Your task to perform on an android device: Is it going to rain tomorrow? Image 0: 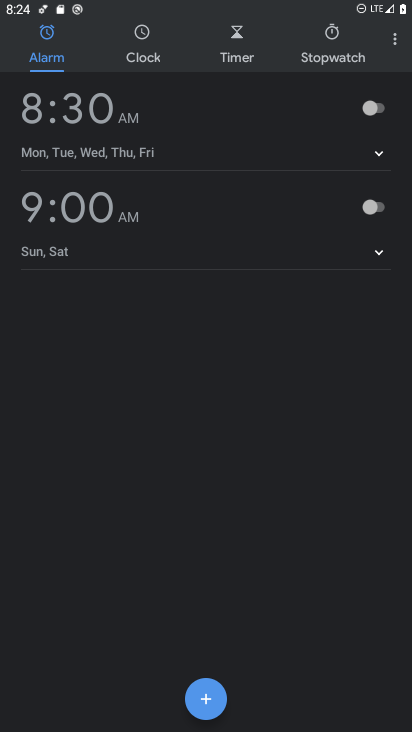
Step 0: press home button
Your task to perform on an android device: Is it going to rain tomorrow? Image 1: 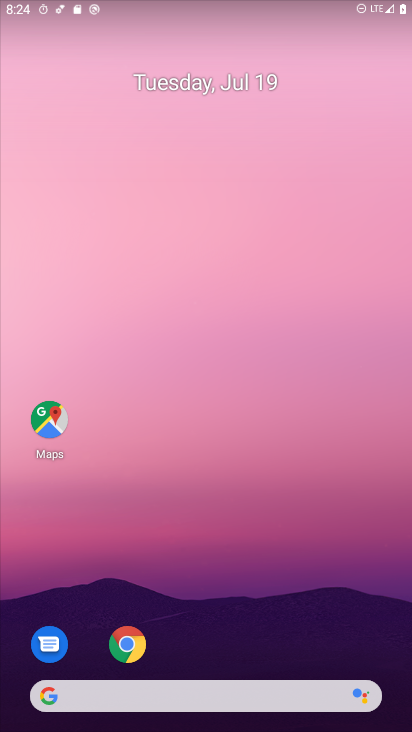
Step 1: click (98, 691)
Your task to perform on an android device: Is it going to rain tomorrow? Image 2: 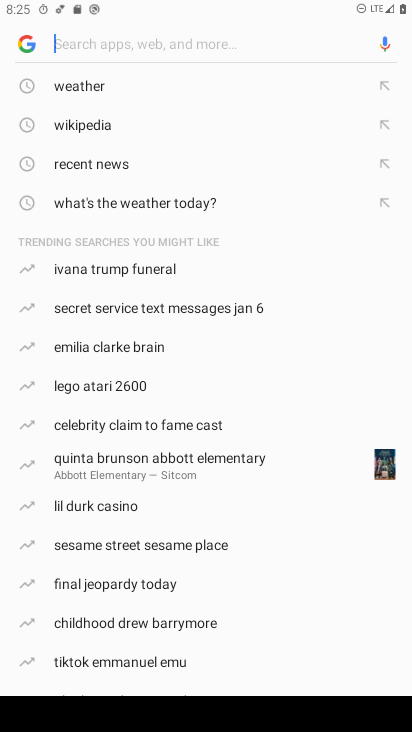
Step 2: type "Is it going to rain tomorrow?"
Your task to perform on an android device: Is it going to rain tomorrow? Image 3: 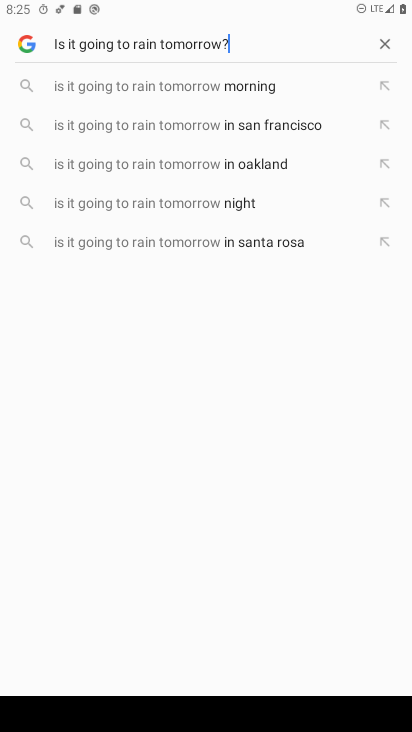
Step 3: type ""
Your task to perform on an android device: Is it going to rain tomorrow? Image 4: 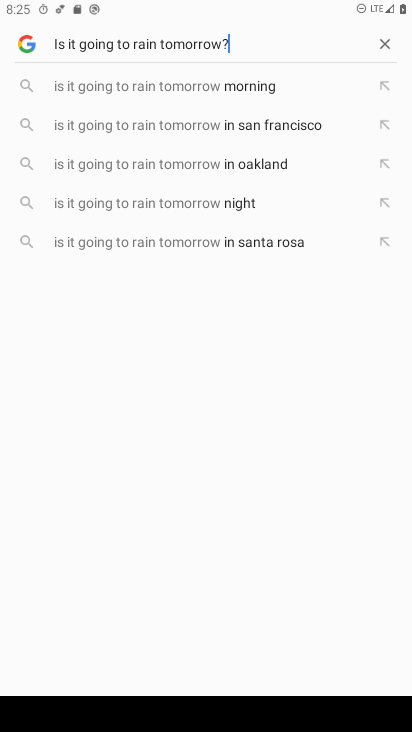
Step 4: type ""
Your task to perform on an android device: Is it going to rain tomorrow? Image 5: 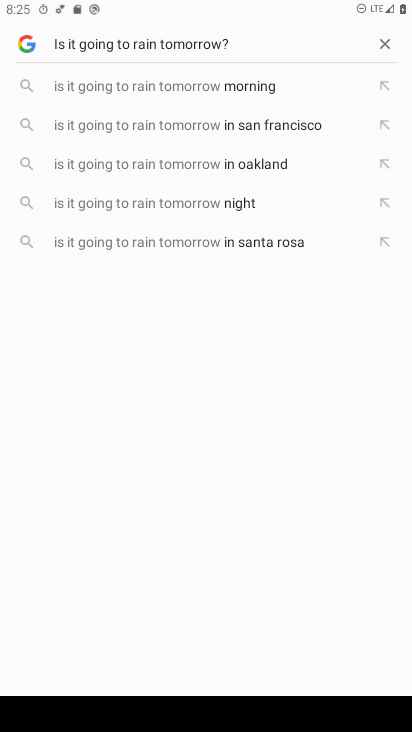
Step 5: type ""
Your task to perform on an android device: Is it going to rain tomorrow? Image 6: 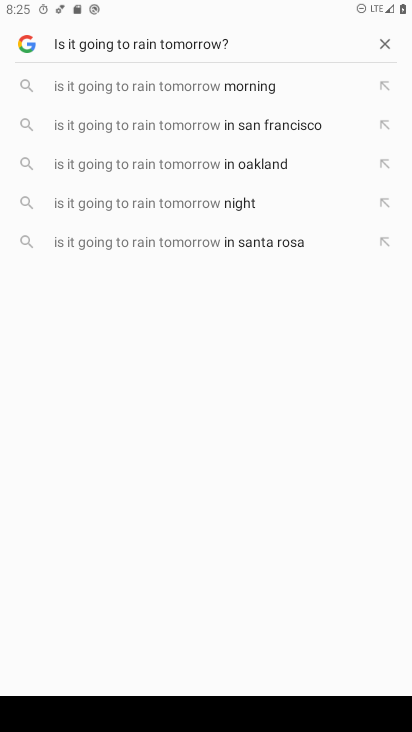
Step 6: task complete